Your task to perform on an android device: What's the weather today? Image 0: 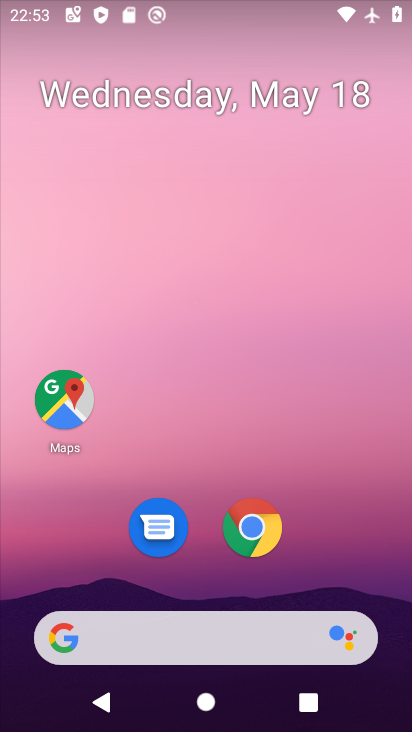
Step 0: drag from (353, 569) to (269, 200)
Your task to perform on an android device: What's the weather today? Image 1: 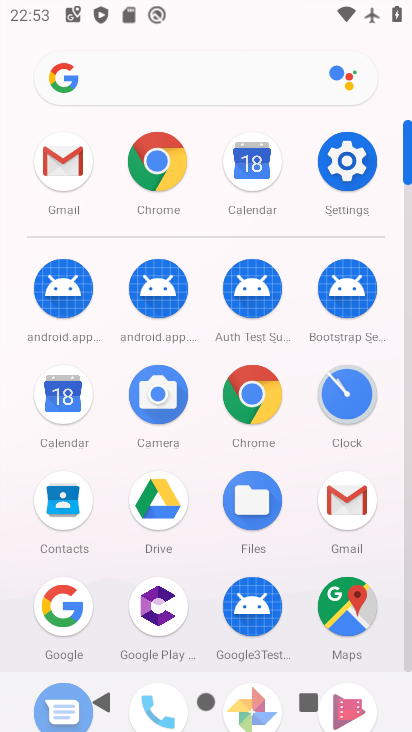
Step 1: click (210, 68)
Your task to perform on an android device: What's the weather today? Image 2: 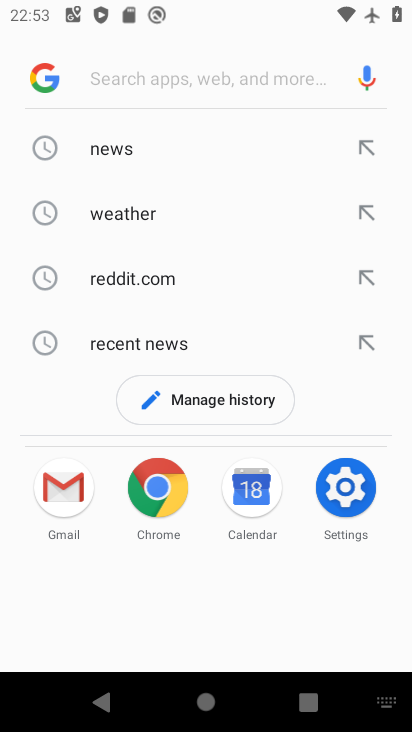
Step 2: click (126, 203)
Your task to perform on an android device: What's the weather today? Image 3: 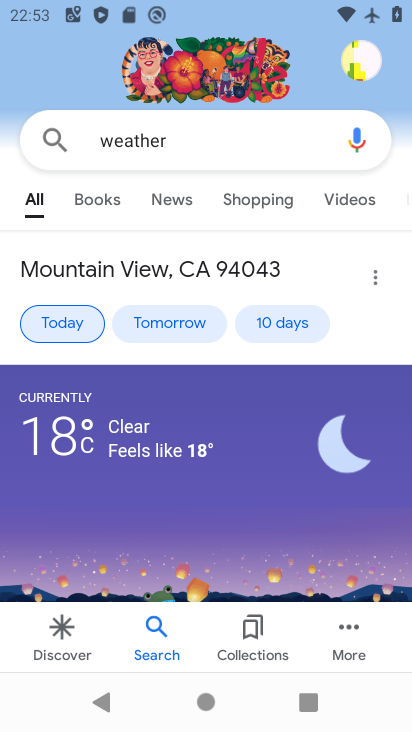
Step 3: task complete